Your task to perform on an android device: change your default location settings in chrome Image 0: 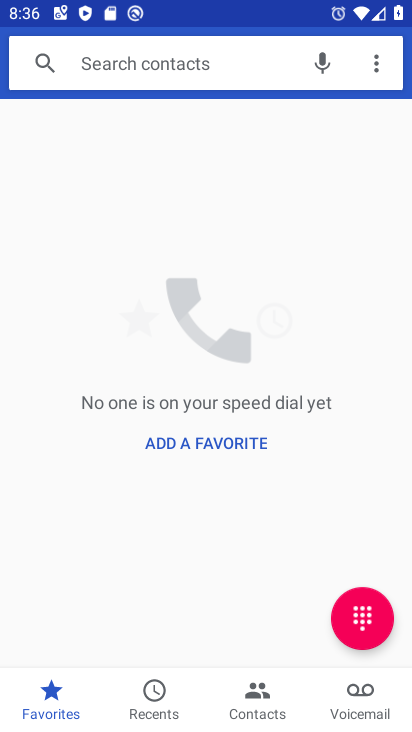
Step 0: press home button
Your task to perform on an android device: change your default location settings in chrome Image 1: 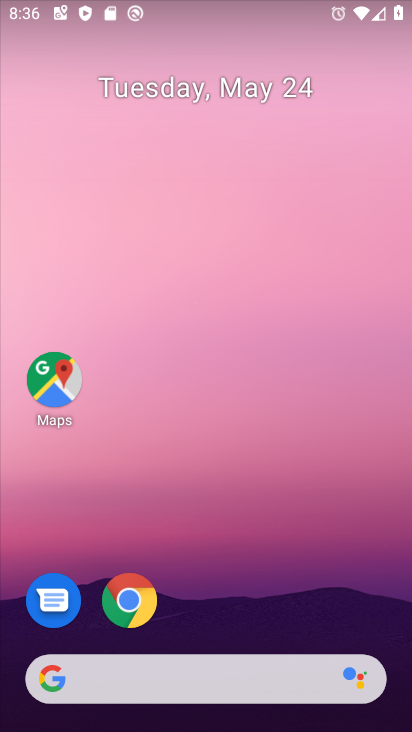
Step 1: drag from (174, 723) to (162, 38)
Your task to perform on an android device: change your default location settings in chrome Image 2: 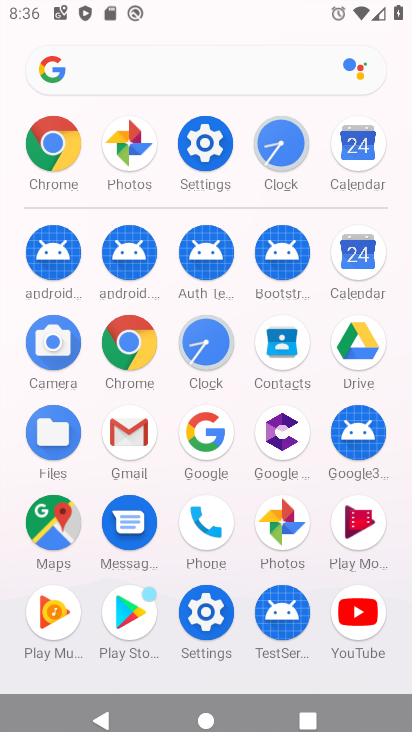
Step 2: click (135, 346)
Your task to perform on an android device: change your default location settings in chrome Image 3: 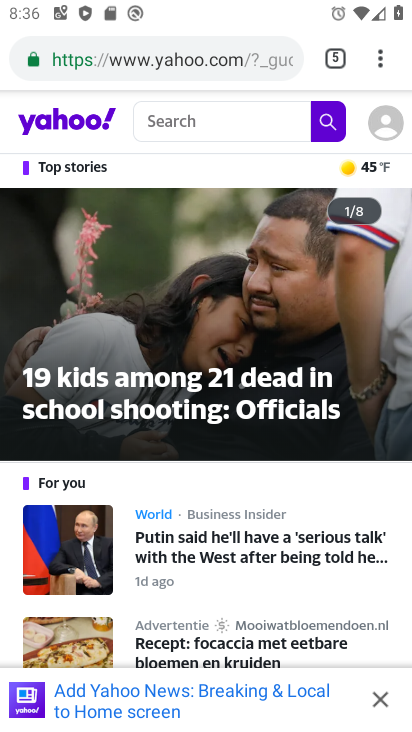
Step 3: click (378, 66)
Your task to perform on an android device: change your default location settings in chrome Image 4: 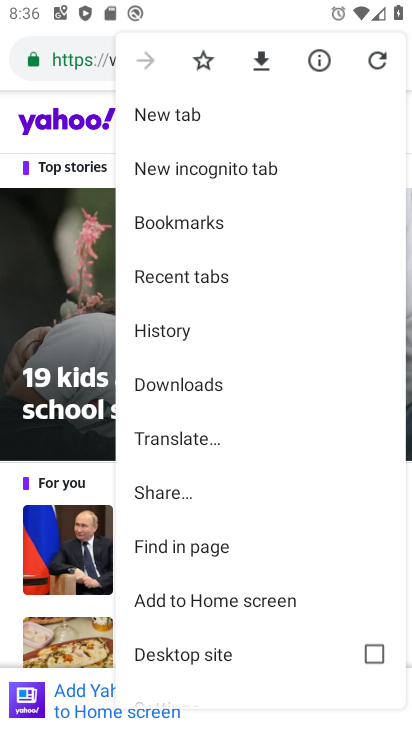
Step 4: drag from (191, 556) to (172, 284)
Your task to perform on an android device: change your default location settings in chrome Image 5: 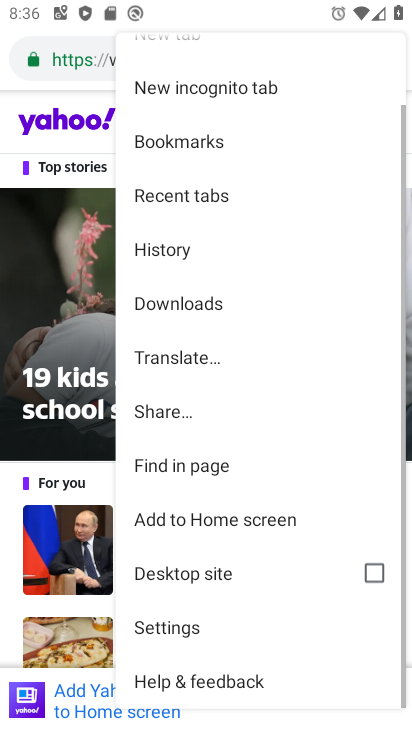
Step 5: click (186, 625)
Your task to perform on an android device: change your default location settings in chrome Image 6: 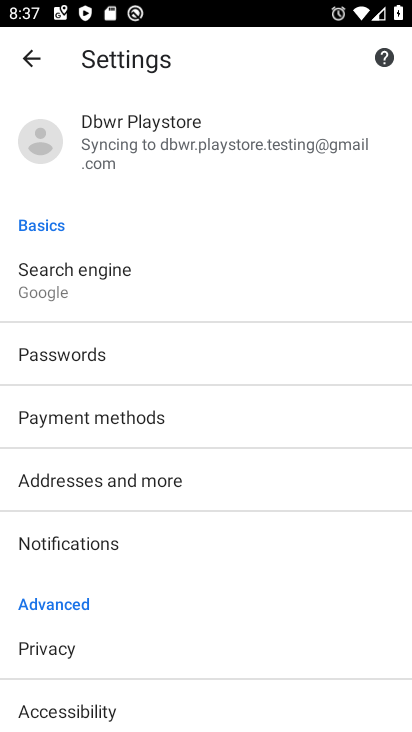
Step 6: drag from (95, 669) to (100, 315)
Your task to perform on an android device: change your default location settings in chrome Image 7: 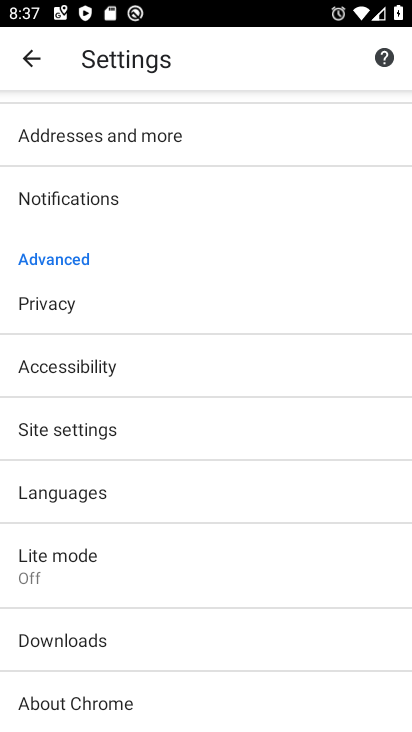
Step 7: click (74, 430)
Your task to perform on an android device: change your default location settings in chrome Image 8: 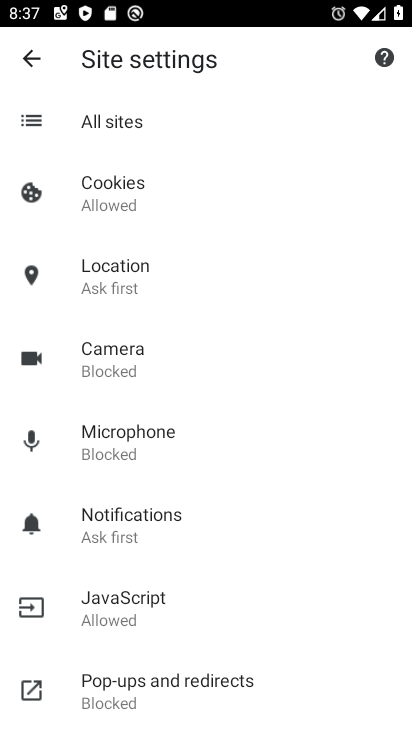
Step 8: click (116, 273)
Your task to perform on an android device: change your default location settings in chrome Image 9: 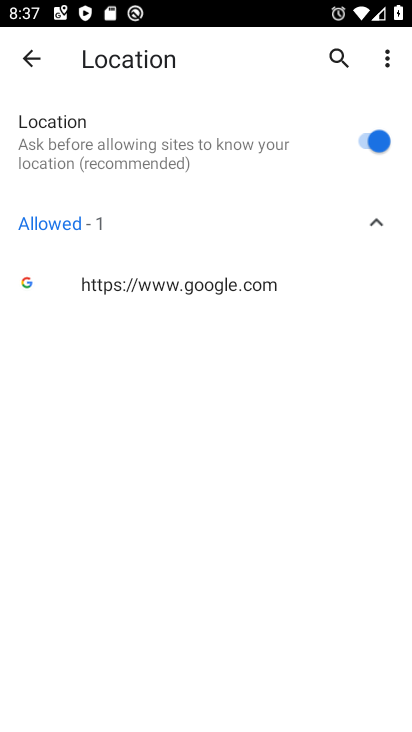
Step 9: click (366, 137)
Your task to perform on an android device: change your default location settings in chrome Image 10: 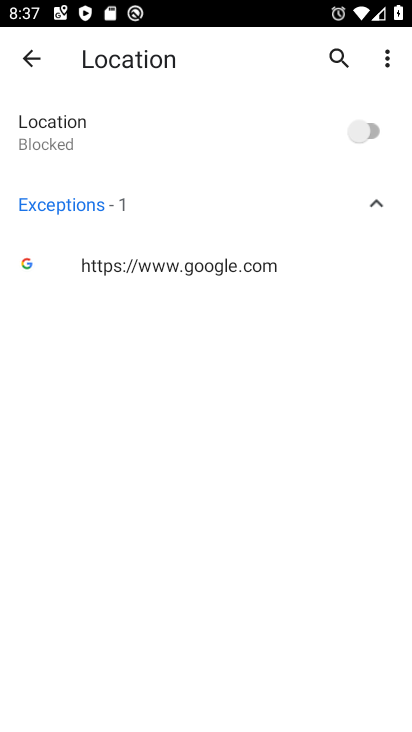
Step 10: task complete